Your task to perform on an android device: turn off smart reply in the gmail app Image 0: 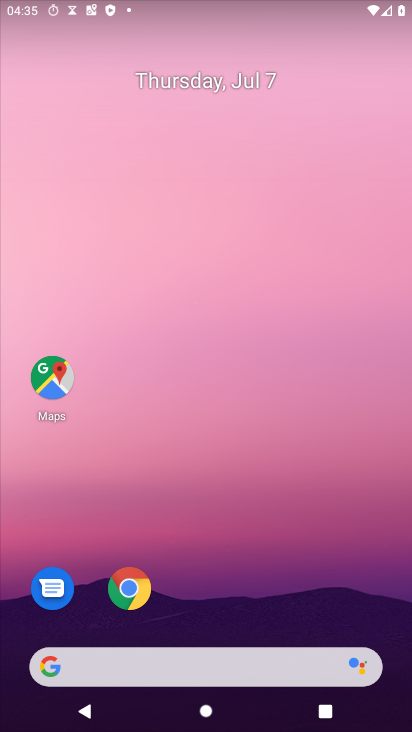
Step 0: drag from (259, 640) to (230, 247)
Your task to perform on an android device: turn off smart reply in the gmail app Image 1: 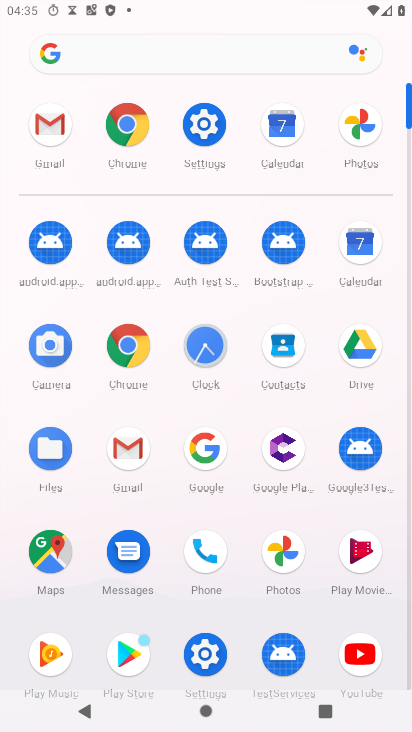
Step 1: click (46, 122)
Your task to perform on an android device: turn off smart reply in the gmail app Image 2: 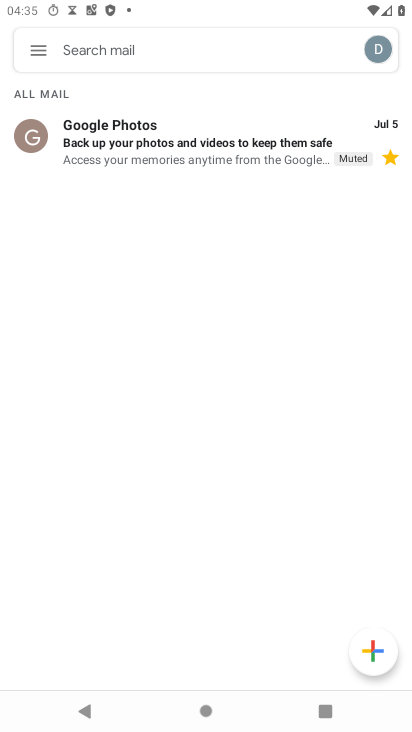
Step 2: click (35, 51)
Your task to perform on an android device: turn off smart reply in the gmail app Image 3: 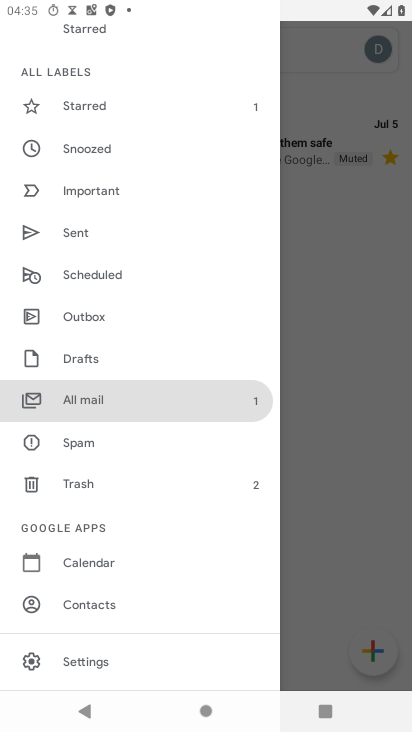
Step 3: click (79, 662)
Your task to perform on an android device: turn off smart reply in the gmail app Image 4: 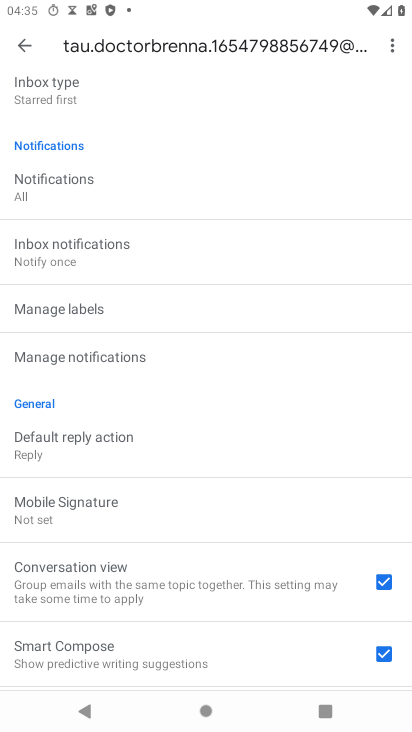
Step 4: task complete